Your task to perform on an android device: Search for vegetarian restaurants on Maps Image 0: 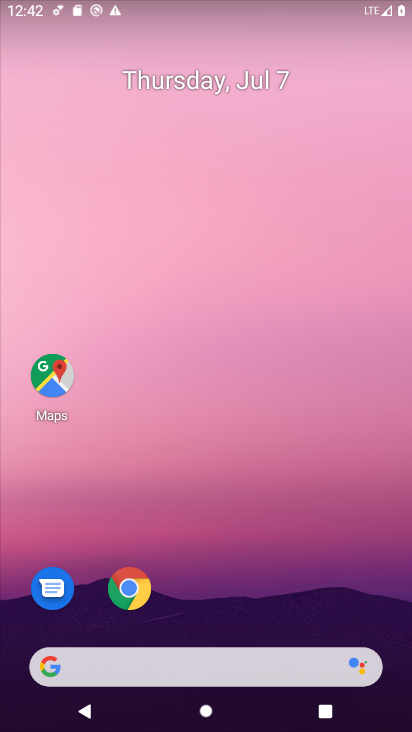
Step 0: drag from (212, 595) to (277, 129)
Your task to perform on an android device: Search for vegetarian restaurants on Maps Image 1: 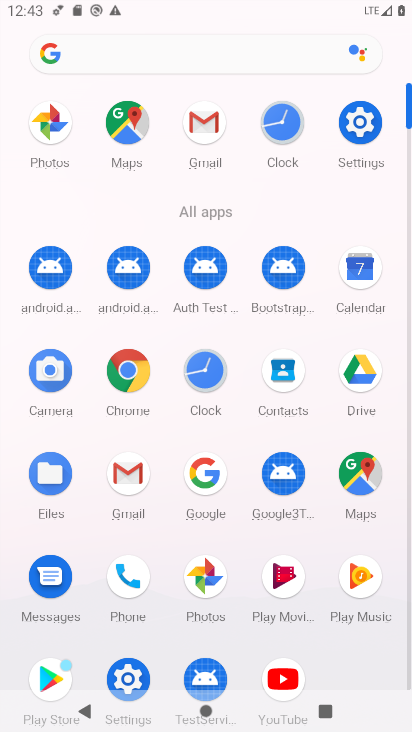
Step 1: click (364, 477)
Your task to perform on an android device: Search for vegetarian restaurants on Maps Image 2: 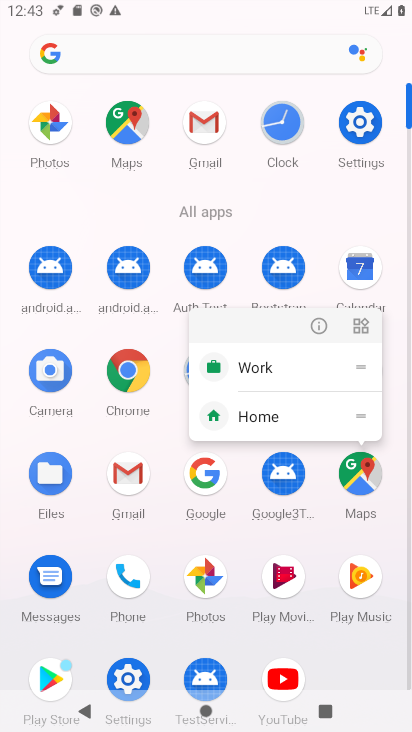
Step 2: click (312, 321)
Your task to perform on an android device: Search for vegetarian restaurants on Maps Image 3: 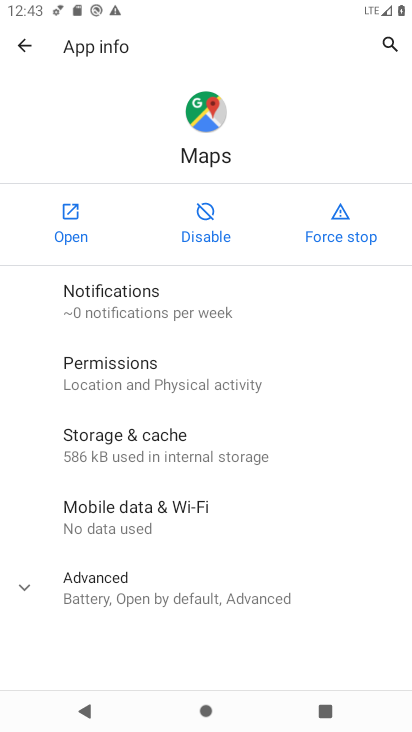
Step 3: click (74, 223)
Your task to perform on an android device: Search for vegetarian restaurants on Maps Image 4: 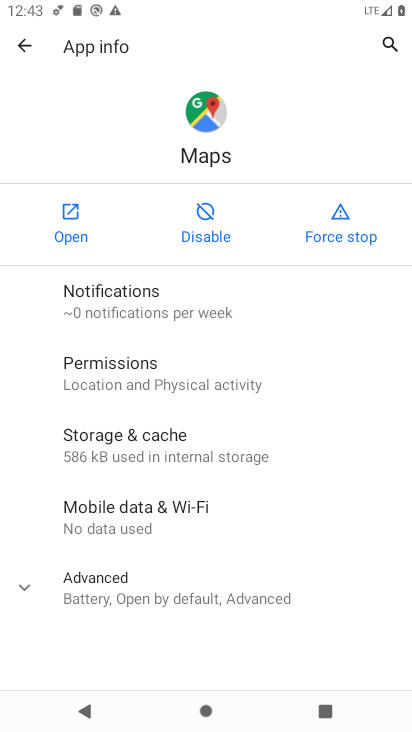
Step 4: click (73, 222)
Your task to perform on an android device: Search for vegetarian restaurants on Maps Image 5: 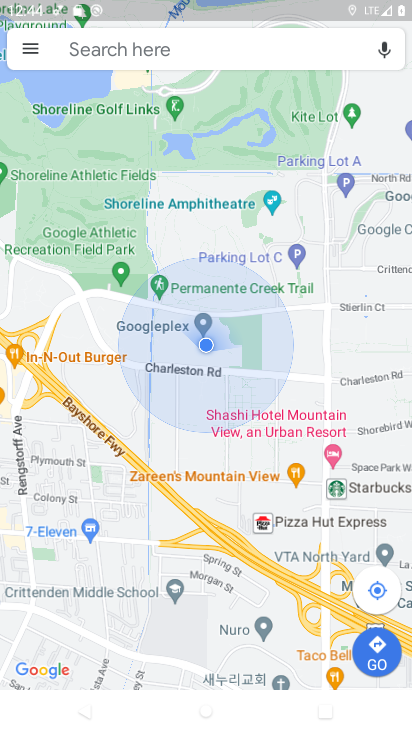
Step 5: click (172, 43)
Your task to perform on an android device: Search for vegetarian restaurants on Maps Image 6: 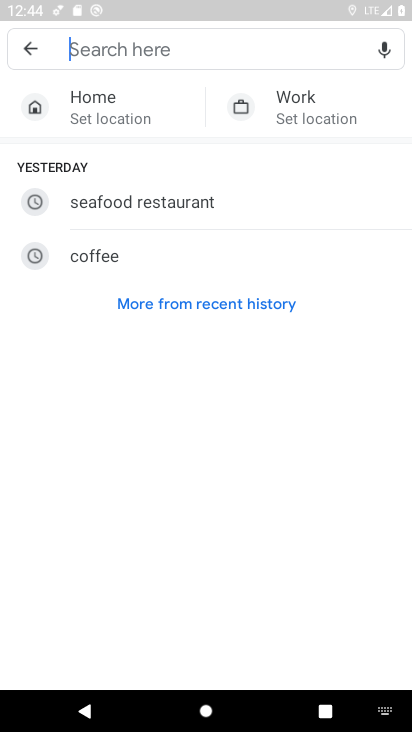
Step 6: type "vegetarian restaurants"
Your task to perform on an android device: Search for vegetarian restaurants on Maps Image 7: 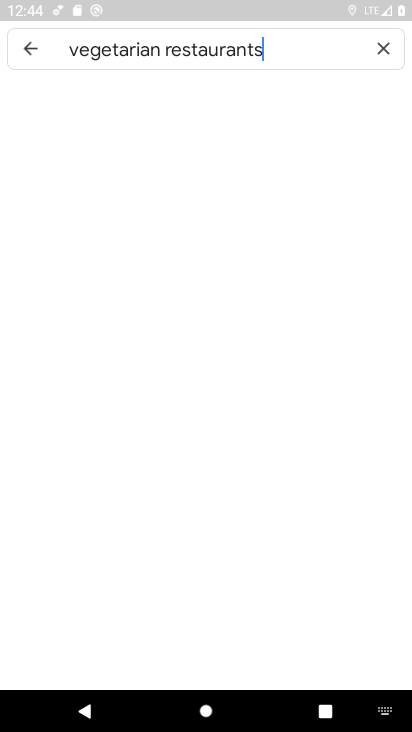
Step 7: type ""
Your task to perform on an android device: Search for vegetarian restaurants on Maps Image 8: 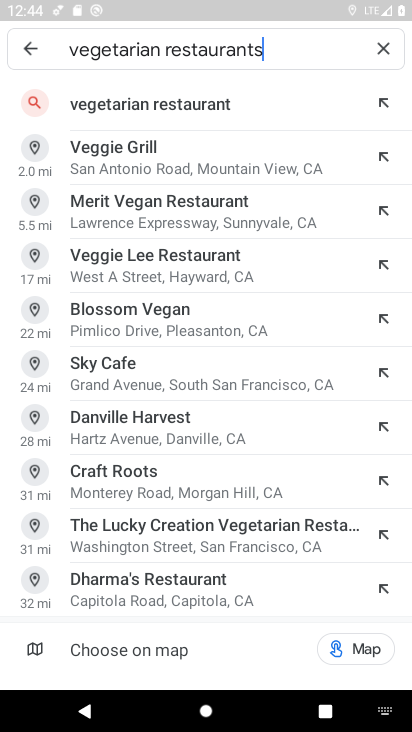
Step 8: click (153, 101)
Your task to perform on an android device: Search for vegetarian restaurants on Maps Image 9: 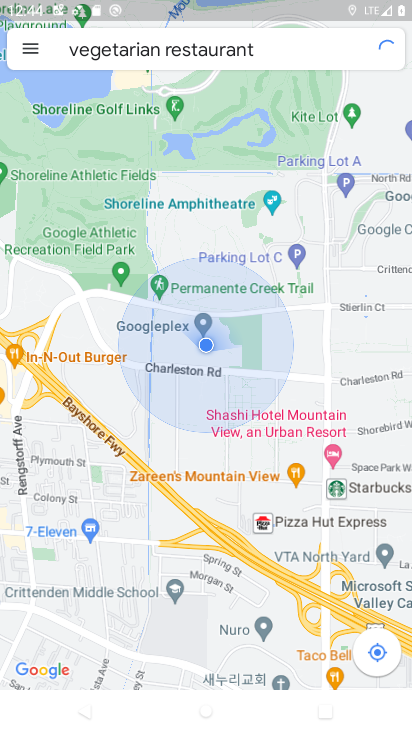
Step 9: task complete